Your task to perform on an android device: set the timer Image 0: 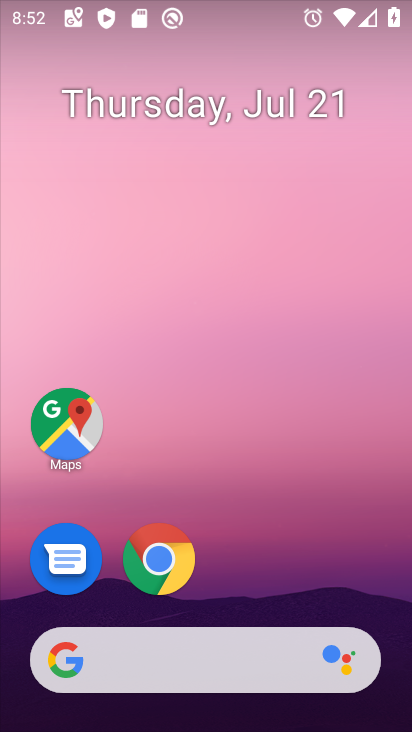
Step 0: drag from (357, 583) to (365, 123)
Your task to perform on an android device: set the timer Image 1: 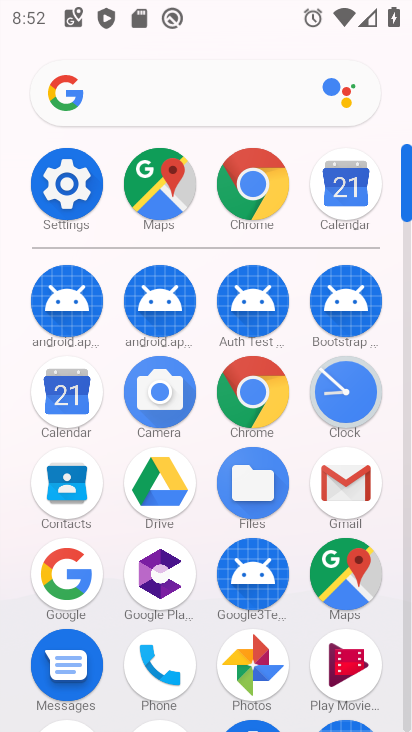
Step 1: click (349, 388)
Your task to perform on an android device: set the timer Image 2: 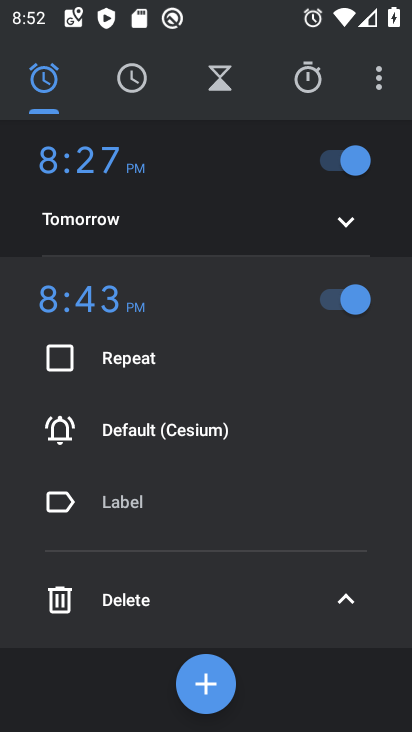
Step 2: click (197, 685)
Your task to perform on an android device: set the timer Image 3: 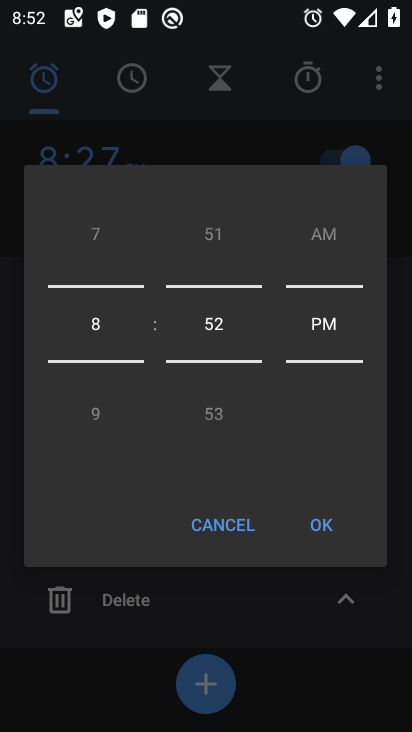
Step 3: click (313, 533)
Your task to perform on an android device: set the timer Image 4: 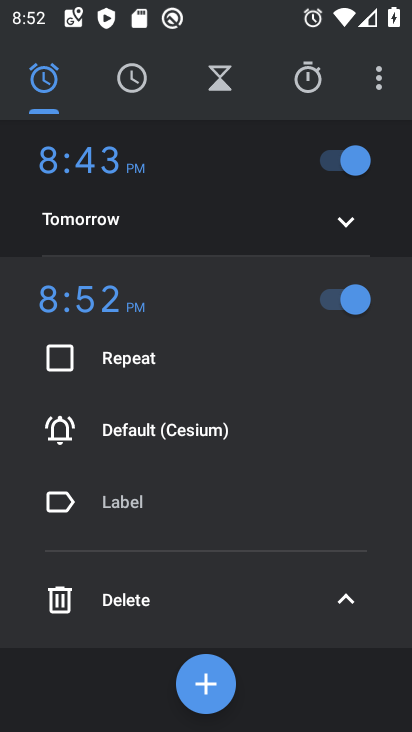
Step 4: task complete